Your task to perform on an android device: Go to ESPN.com Image 0: 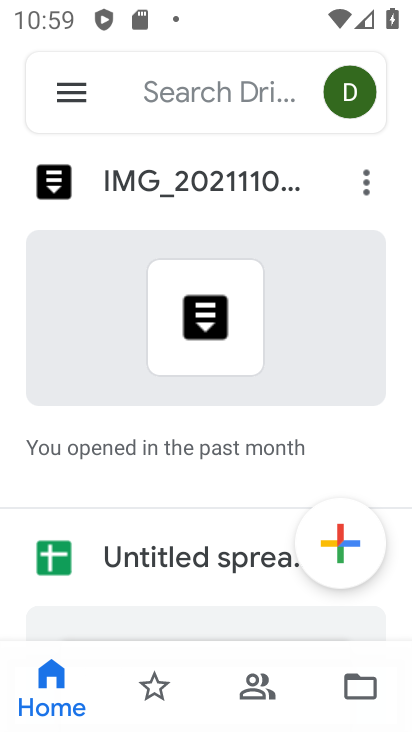
Step 0: press home button
Your task to perform on an android device: Go to ESPN.com Image 1: 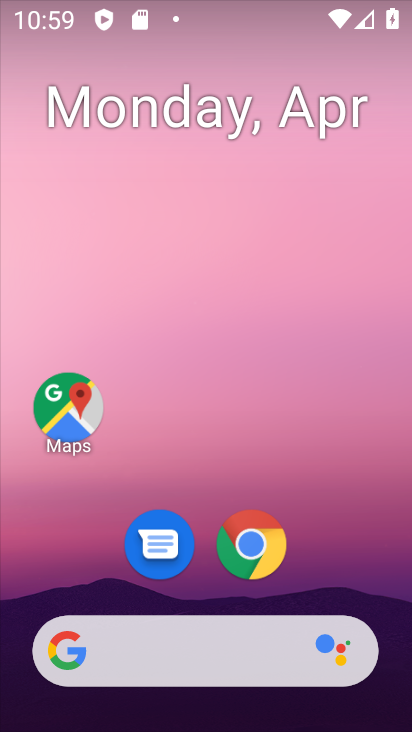
Step 1: click (256, 551)
Your task to perform on an android device: Go to ESPN.com Image 2: 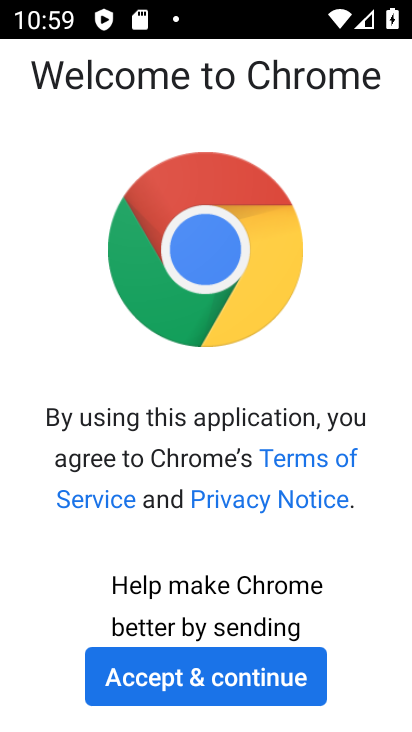
Step 2: click (141, 704)
Your task to perform on an android device: Go to ESPN.com Image 3: 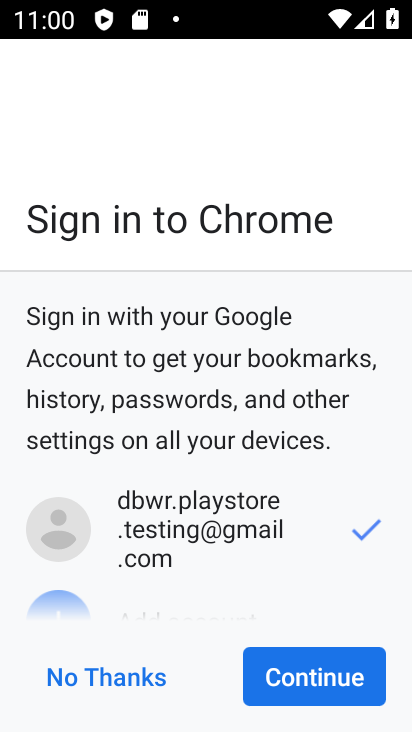
Step 3: click (130, 683)
Your task to perform on an android device: Go to ESPN.com Image 4: 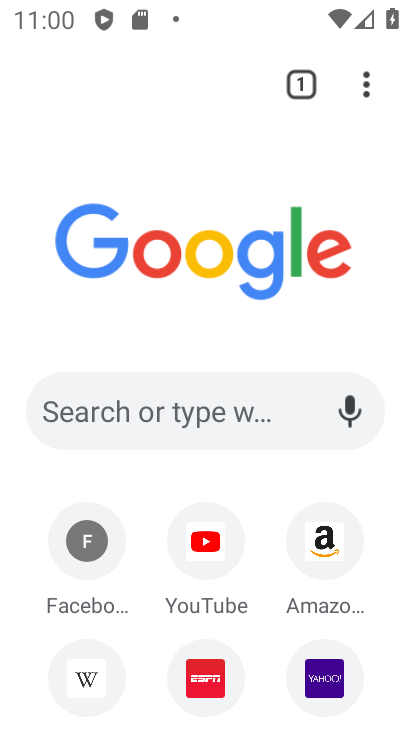
Step 4: click (204, 680)
Your task to perform on an android device: Go to ESPN.com Image 5: 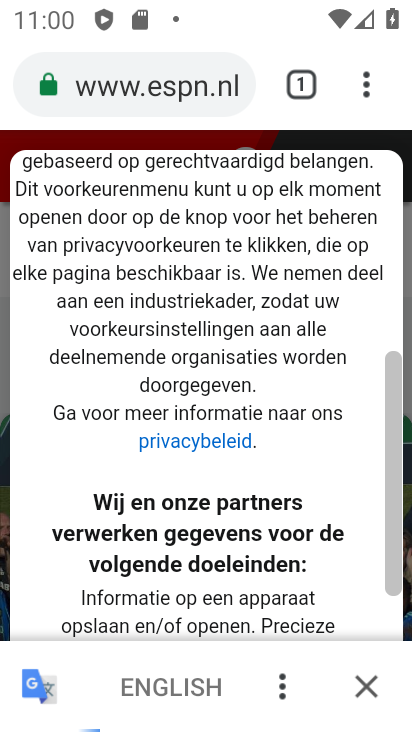
Step 5: task complete